Your task to perform on an android device: Show me productivity apps on the Play Store Image 0: 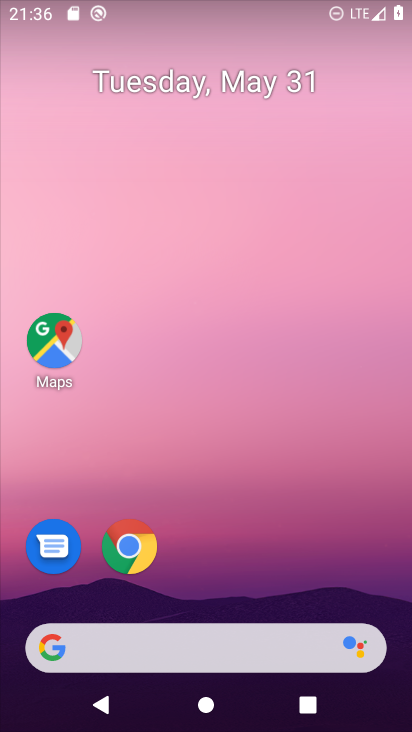
Step 0: drag from (398, 683) to (369, 22)
Your task to perform on an android device: Show me productivity apps on the Play Store Image 1: 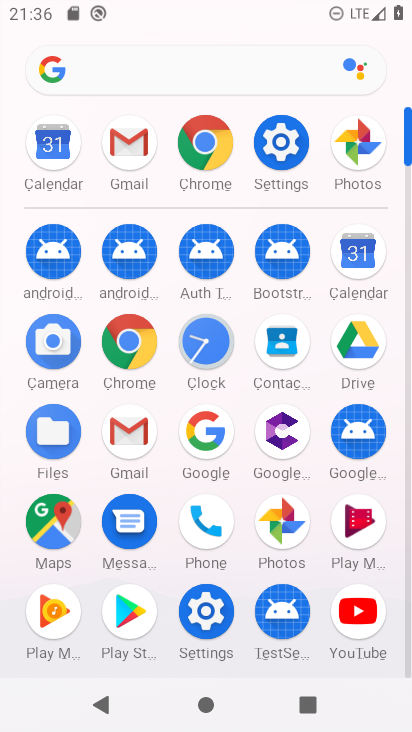
Step 1: click (126, 611)
Your task to perform on an android device: Show me productivity apps on the Play Store Image 2: 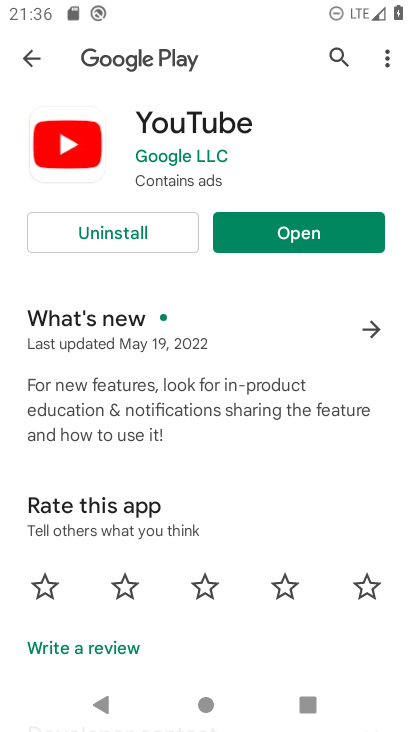
Step 2: click (29, 64)
Your task to perform on an android device: Show me productivity apps on the Play Store Image 3: 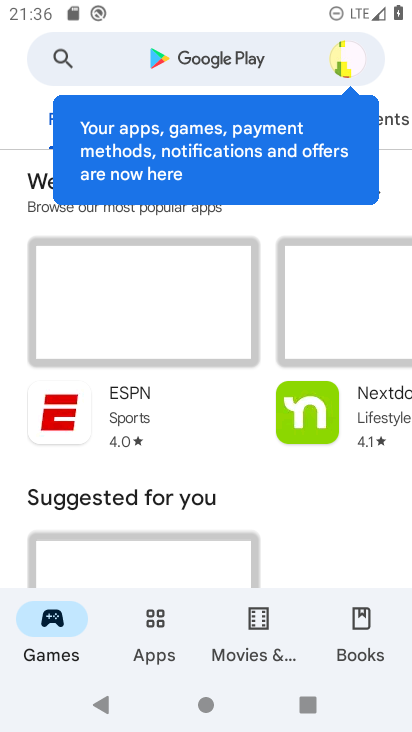
Step 3: click (233, 57)
Your task to perform on an android device: Show me productivity apps on the Play Store Image 4: 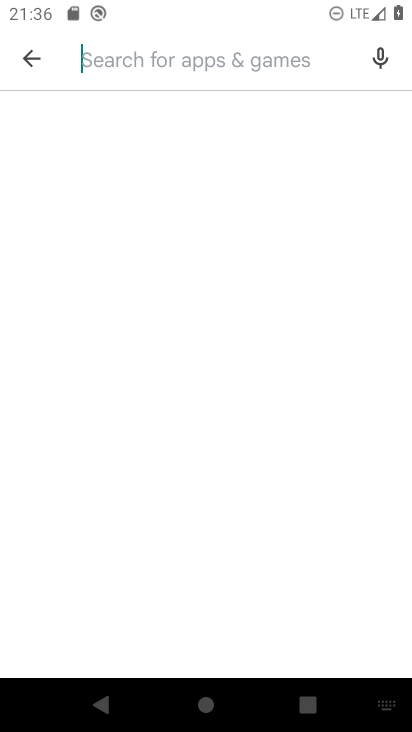
Step 4: type "productivity apps"
Your task to perform on an android device: Show me productivity apps on the Play Store Image 5: 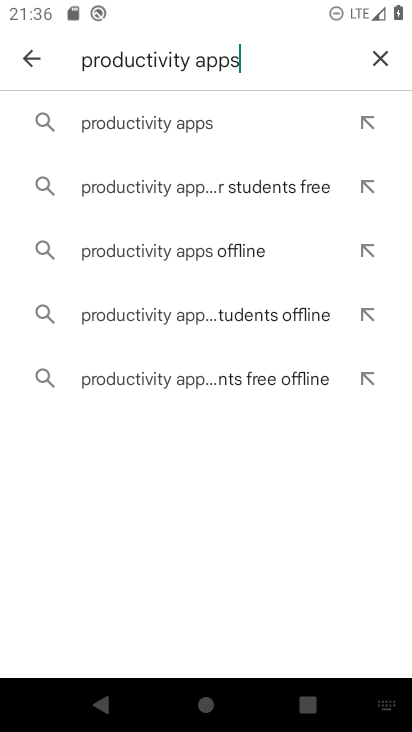
Step 5: click (155, 114)
Your task to perform on an android device: Show me productivity apps on the Play Store Image 6: 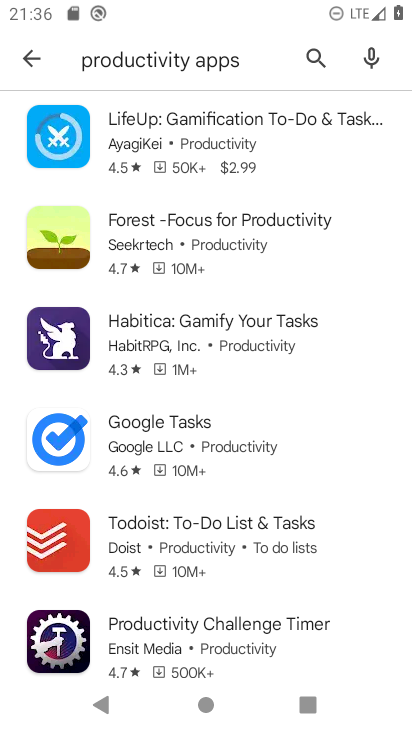
Step 6: task complete